Your task to perform on an android device: Open CNN.com Image 0: 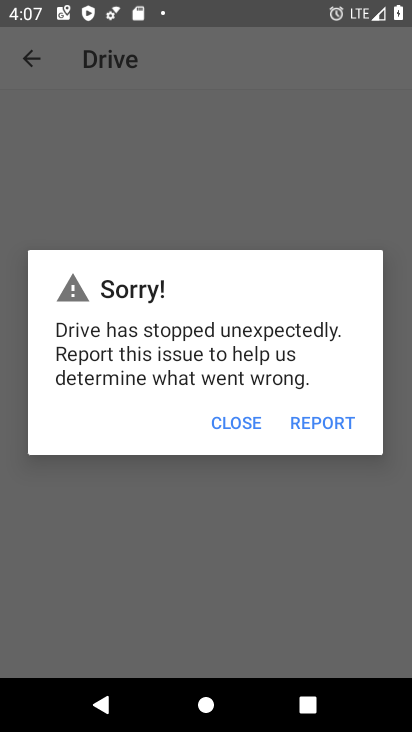
Step 0: press back button
Your task to perform on an android device: Open CNN.com Image 1: 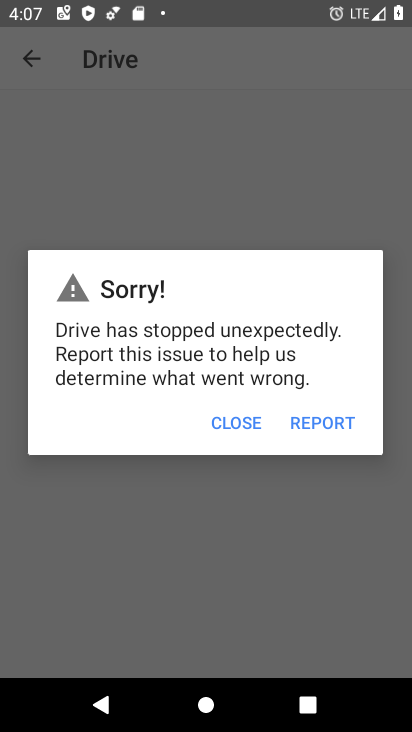
Step 1: press home button
Your task to perform on an android device: Open CNN.com Image 2: 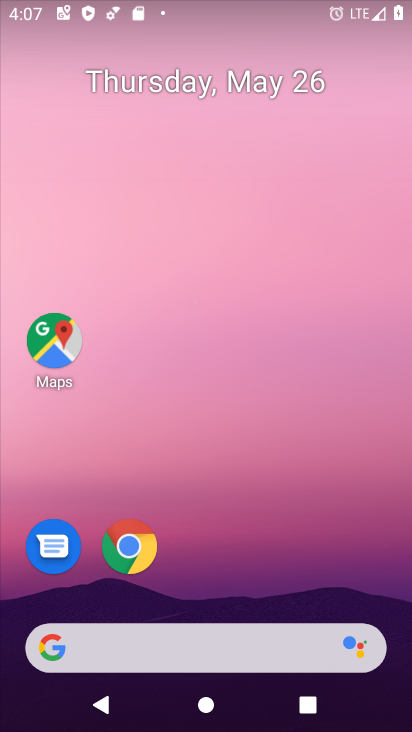
Step 2: drag from (238, 586) to (234, 724)
Your task to perform on an android device: Open CNN.com Image 3: 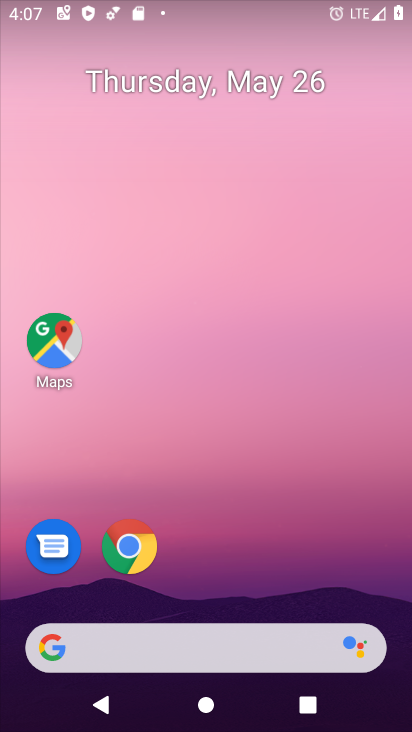
Step 3: click (132, 539)
Your task to perform on an android device: Open CNN.com Image 4: 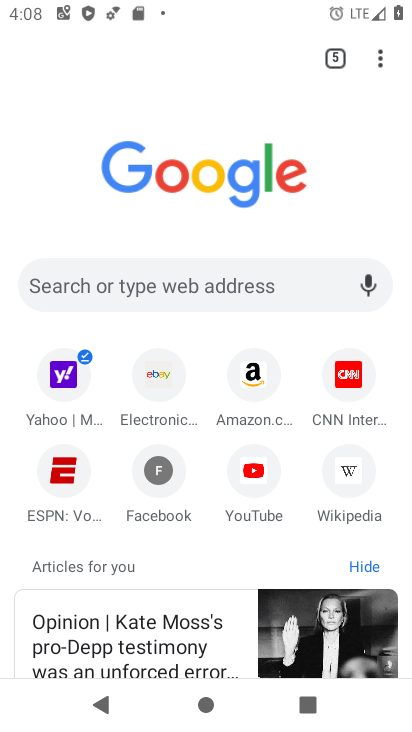
Step 4: click (355, 385)
Your task to perform on an android device: Open CNN.com Image 5: 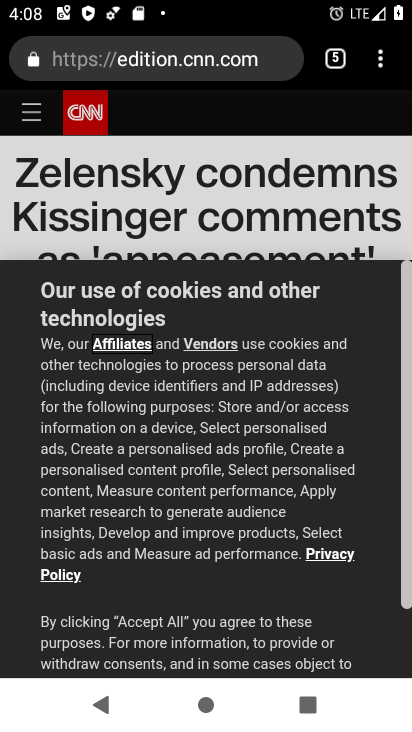
Step 5: task complete